Your task to perform on an android device: find snoozed emails in the gmail app Image 0: 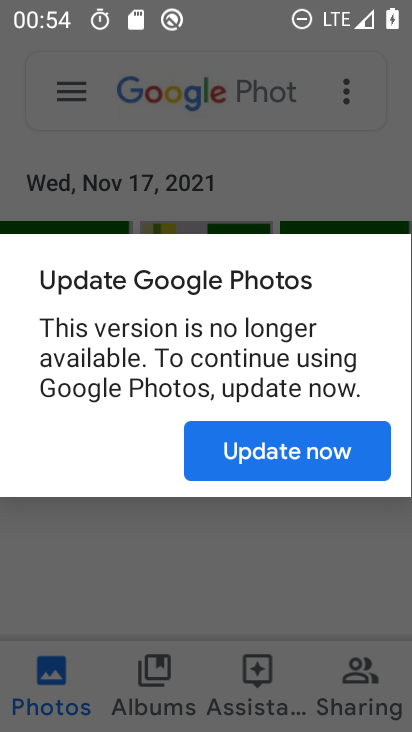
Step 0: press home button
Your task to perform on an android device: find snoozed emails in the gmail app Image 1: 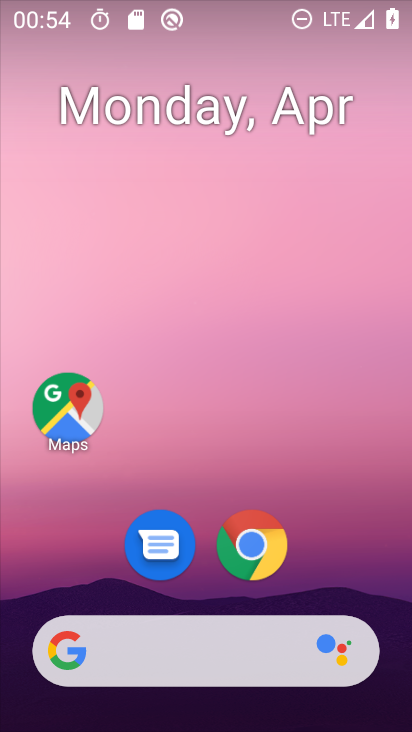
Step 1: drag from (323, 558) to (391, 238)
Your task to perform on an android device: find snoozed emails in the gmail app Image 2: 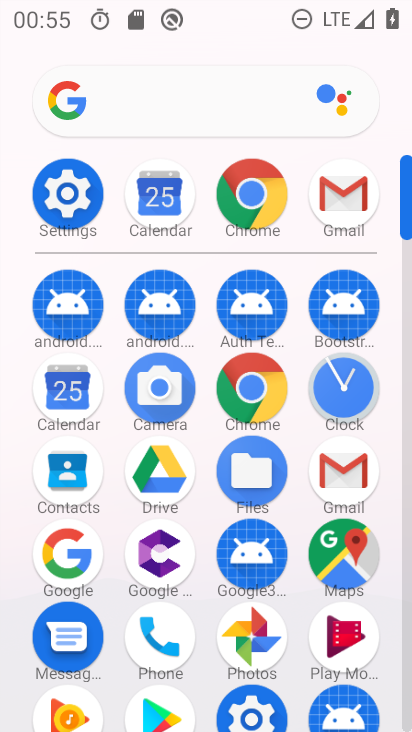
Step 2: click (330, 192)
Your task to perform on an android device: find snoozed emails in the gmail app Image 3: 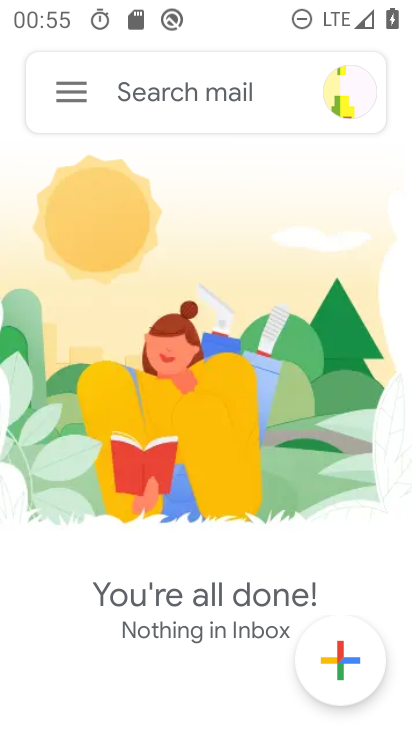
Step 3: click (73, 90)
Your task to perform on an android device: find snoozed emails in the gmail app Image 4: 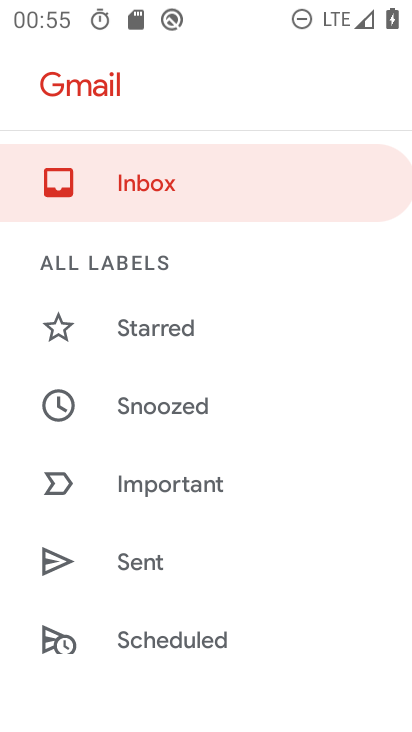
Step 4: click (133, 399)
Your task to perform on an android device: find snoozed emails in the gmail app Image 5: 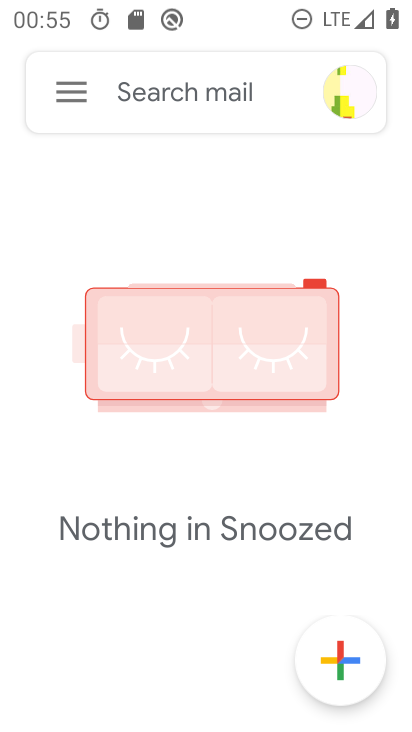
Step 5: task complete